Your task to perform on an android device: Add bose soundlink mini to the cart on amazon, then select checkout. Image 0: 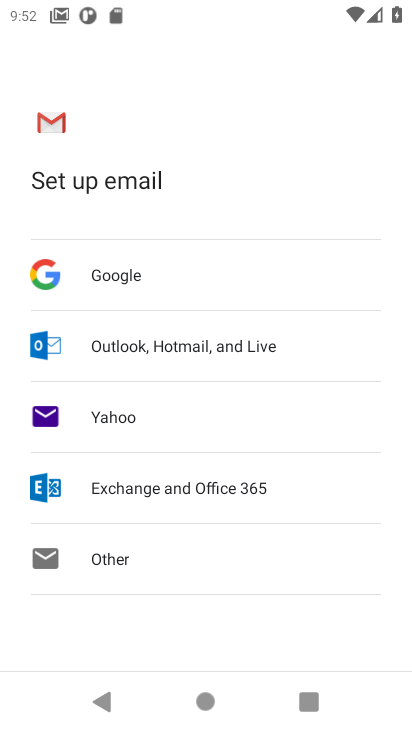
Step 0: press home button
Your task to perform on an android device: Add bose soundlink mini to the cart on amazon, then select checkout. Image 1: 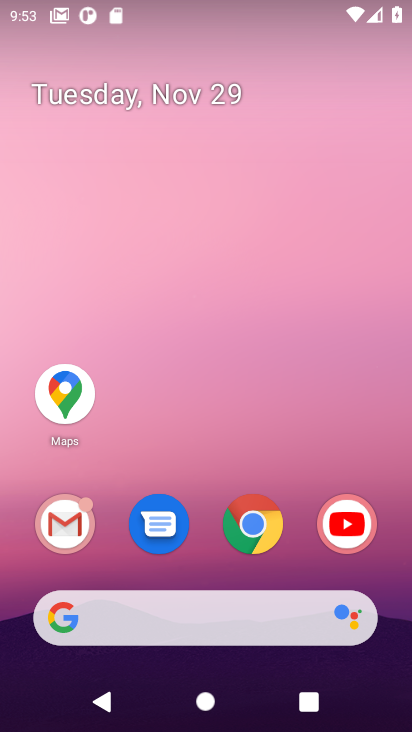
Step 1: click (259, 531)
Your task to perform on an android device: Add bose soundlink mini to the cart on amazon, then select checkout. Image 2: 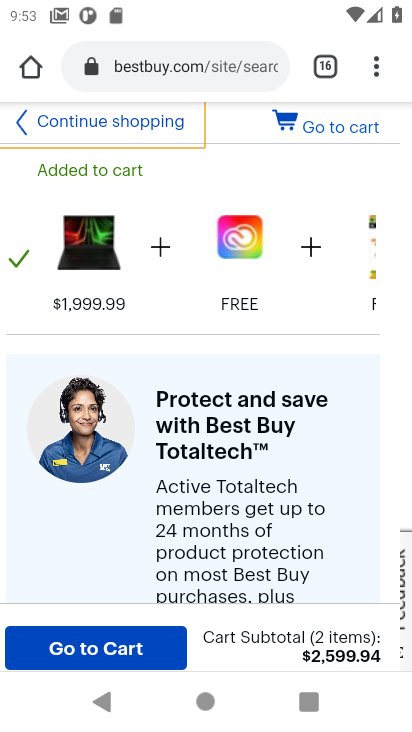
Step 2: click (153, 66)
Your task to perform on an android device: Add bose soundlink mini to the cart on amazon, then select checkout. Image 3: 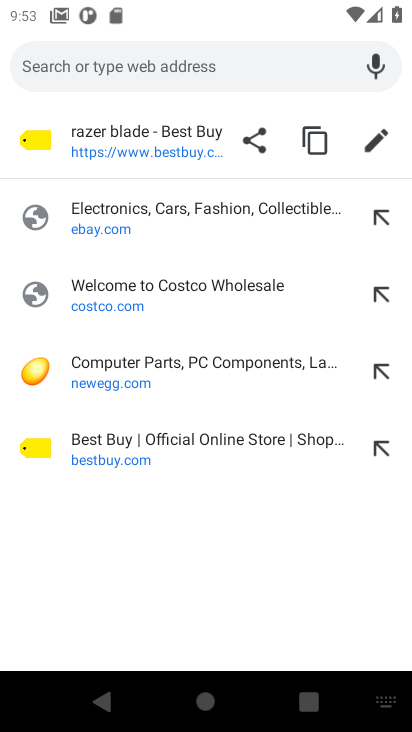
Step 3: type "amazon.com"
Your task to perform on an android device: Add bose soundlink mini to the cart on amazon, then select checkout. Image 4: 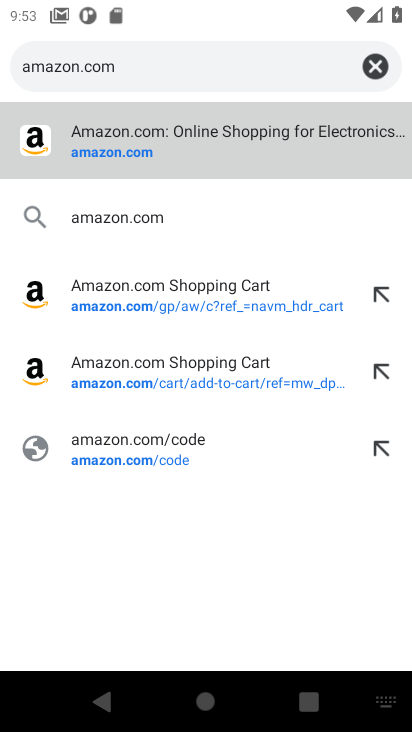
Step 4: click (91, 149)
Your task to perform on an android device: Add bose soundlink mini to the cart on amazon, then select checkout. Image 5: 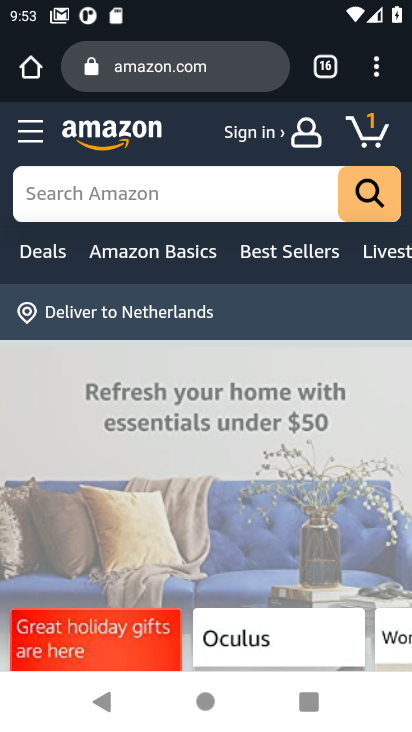
Step 5: click (69, 201)
Your task to perform on an android device: Add bose soundlink mini to the cart on amazon, then select checkout. Image 6: 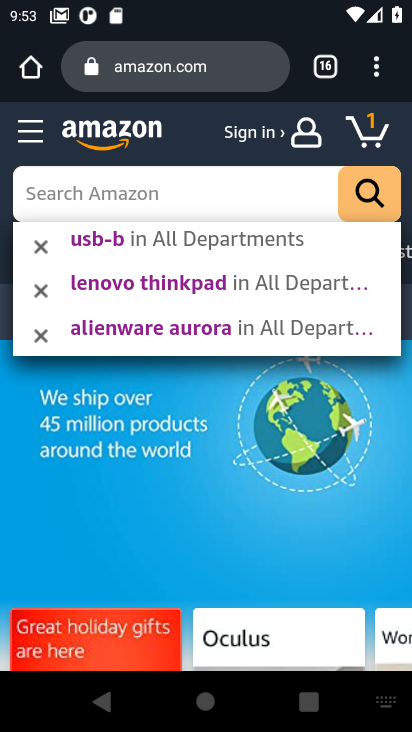
Step 6: type " bose soundlink mini "
Your task to perform on an android device: Add bose soundlink mini to the cart on amazon, then select checkout. Image 7: 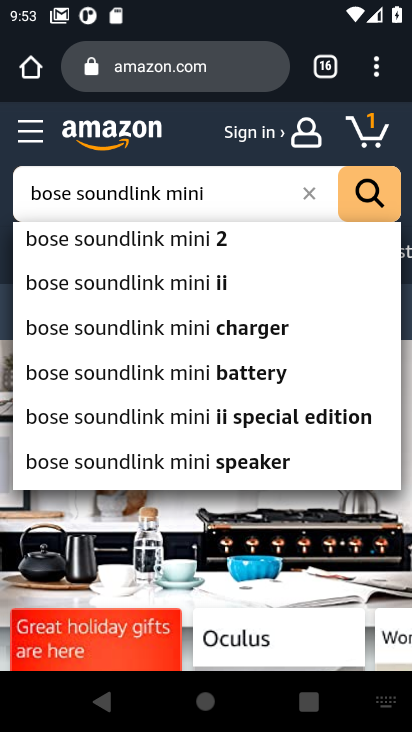
Step 7: click (384, 198)
Your task to perform on an android device: Add bose soundlink mini to the cart on amazon, then select checkout. Image 8: 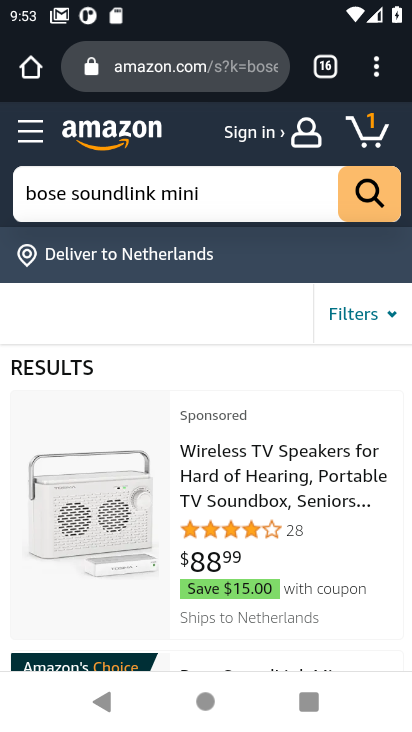
Step 8: drag from (132, 521) to (159, 339)
Your task to perform on an android device: Add bose soundlink mini to the cart on amazon, then select checkout. Image 9: 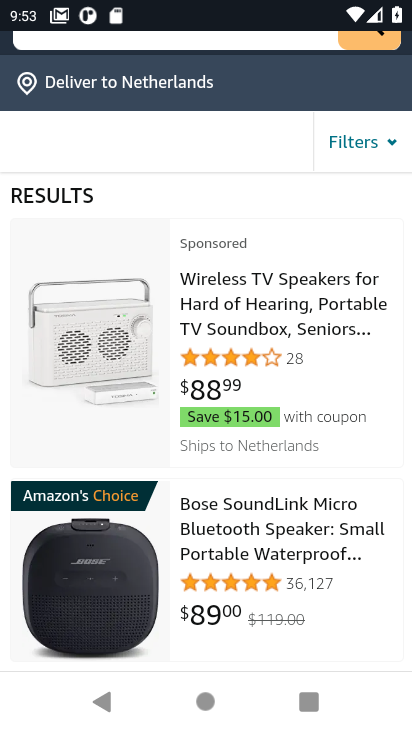
Step 9: drag from (142, 534) to (155, 390)
Your task to perform on an android device: Add bose soundlink mini to the cart on amazon, then select checkout. Image 10: 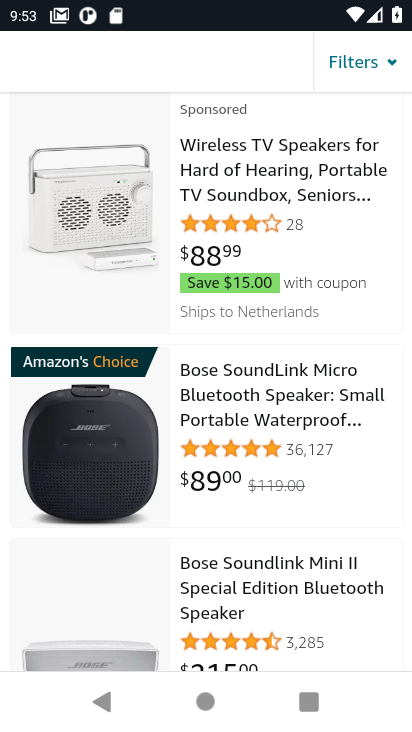
Step 10: drag from (126, 581) to (134, 351)
Your task to perform on an android device: Add bose soundlink mini to the cart on amazon, then select checkout. Image 11: 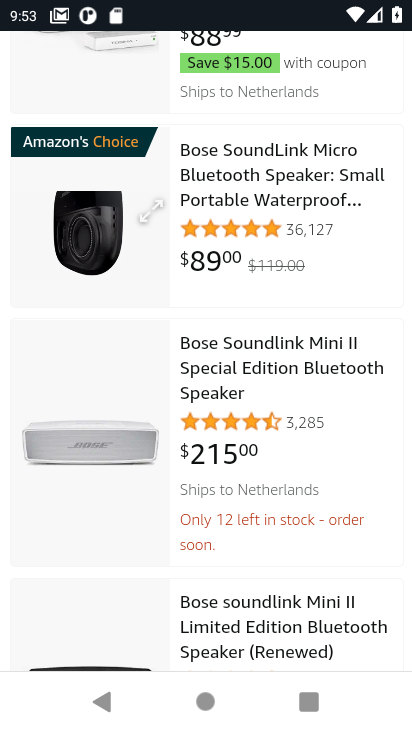
Step 11: click (247, 366)
Your task to perform on an android device: Add bose soundlink mini to the cart on amazon, then select checkout. Image 12: 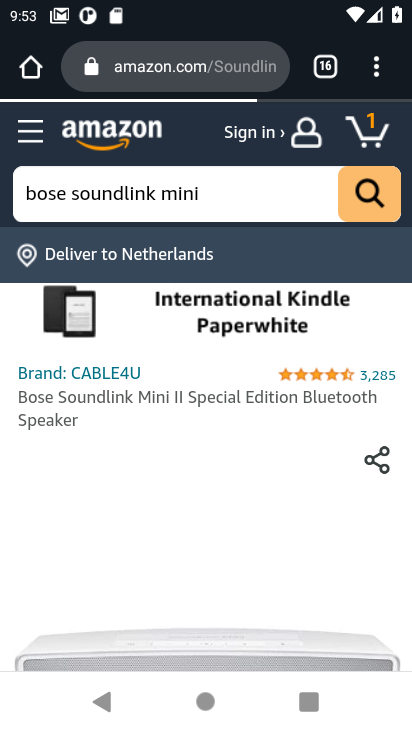
Step 12: drag from (206, 422) to (222, 227)
Your task to perform on an android device: Add bose soundlink mini to the cart on amazon, then select checkout. Image 13: 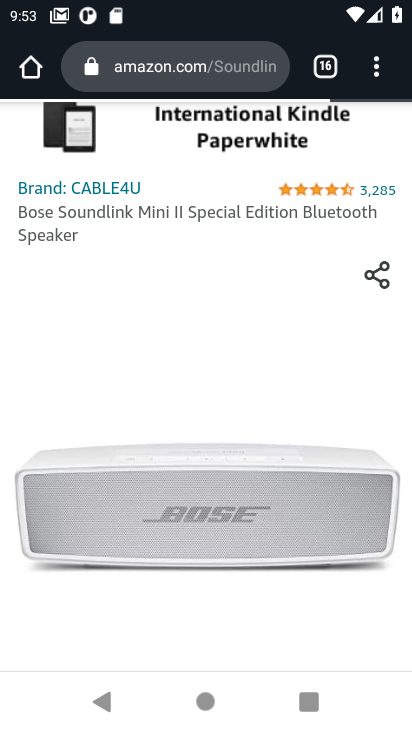
Step 13: drag from (191, 518) to (209, 272)
Your task to perform on an android device: Add bose soundlink mini to the cart on amazon, then select checkout. Image 14: 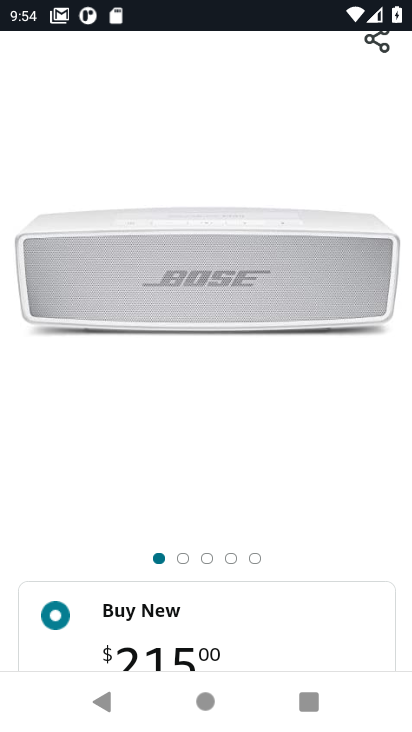
Step 14: drag from (172, 526) to (183, 266)
Your task to perform on an android device: Add bose soundlink mini to the cart on amazon, then select checkout. Image 15: 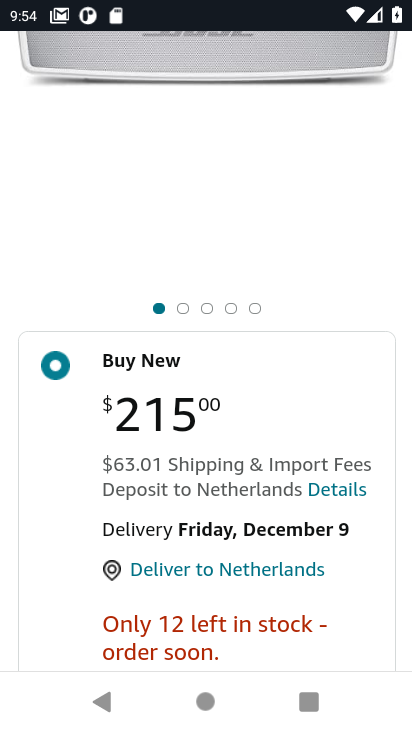
Step 15: drag from (173, 472) to (187, 270)
Your task to perform on an android device: Add bose soundlink mini to the cart on amazon, then select checkout. Image 16: 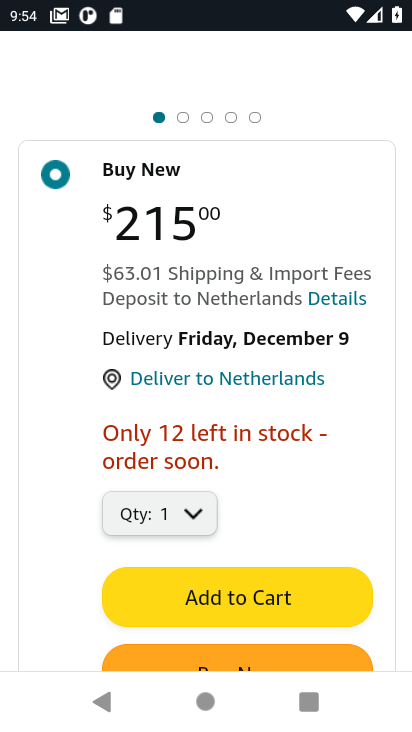
Step 16: drag from (197, 547) to (210, 419)
Your task to perform on an android device: Add bose soundlink mini to the cart on amazon, then select checkout. Image 17: 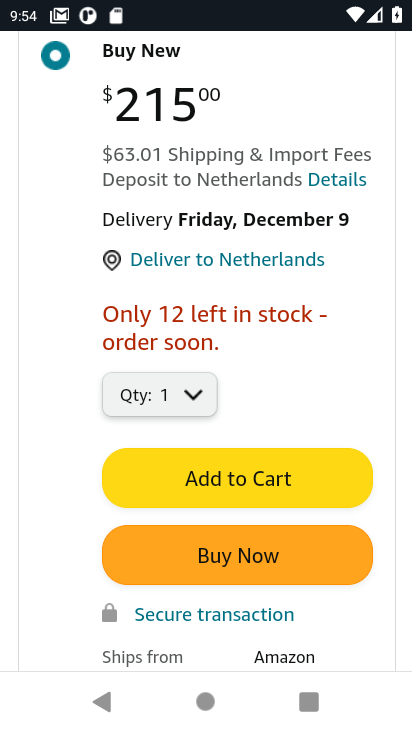
Step 17: click (222, 478)
Your task to perform on an android device: Add bose soundlink mini to the cart on amazon, then select checkout. Image 18: 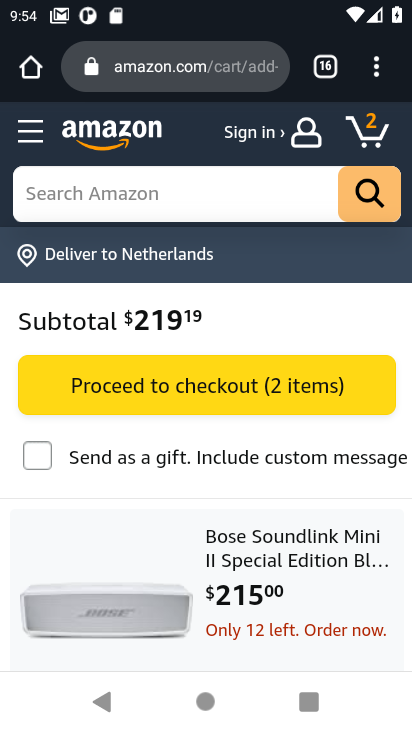
Step 18: click (166, 392)
Your task to perform on an android device: Add bose soundlink mini to the cart on amazon, then select checkout. Image 19: 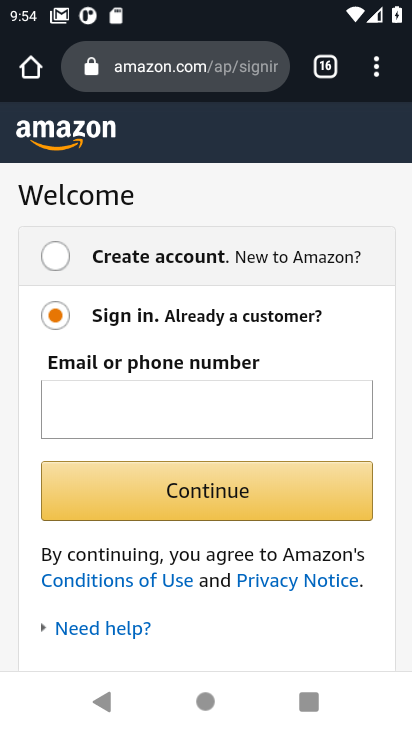
Step 19: task complete